Your task to perform on an android device: Go to eBay Image 0: 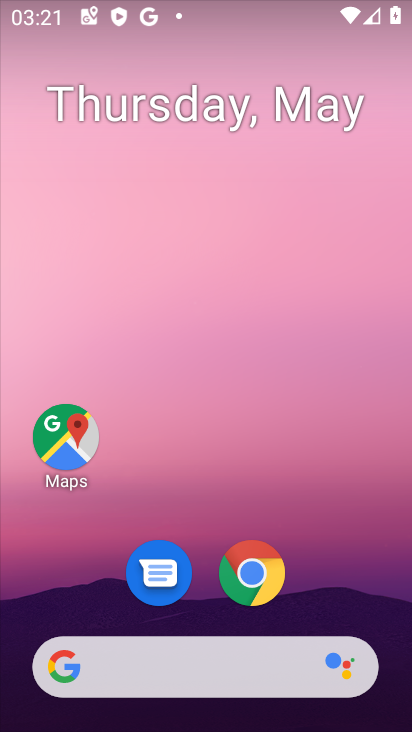
Step 0: click (253, 570)
Your task to perform on an android device: Go to eBay Image 1: 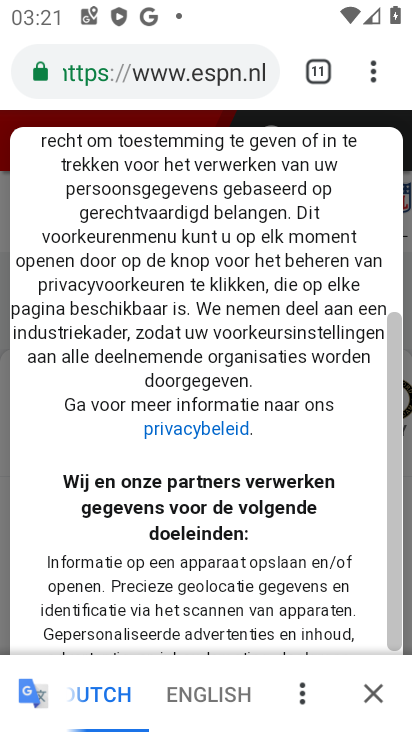
Step 1: click (301, 64)
Your task to perform on an android device: Go to eBay Image 2: 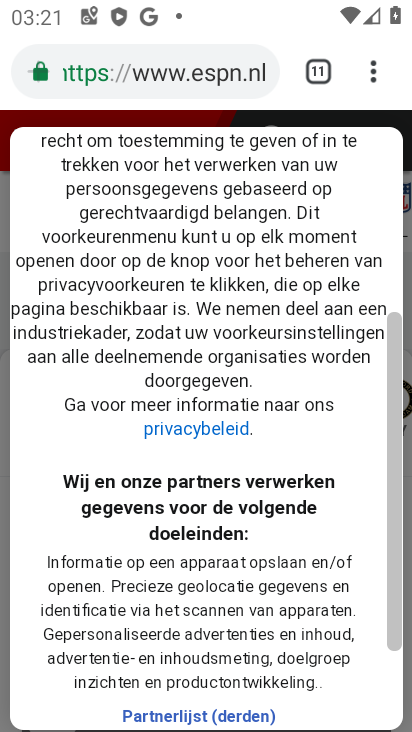
Step 2: click (323, 74)
Your task to perform on an android device: Go to eBay Image 3: 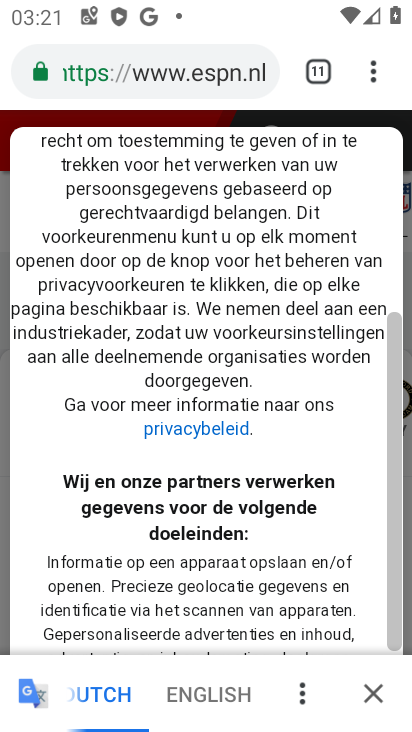
Step 3: click (317, 68)
Your task to perform on an android device: Go to eBay Image 4: 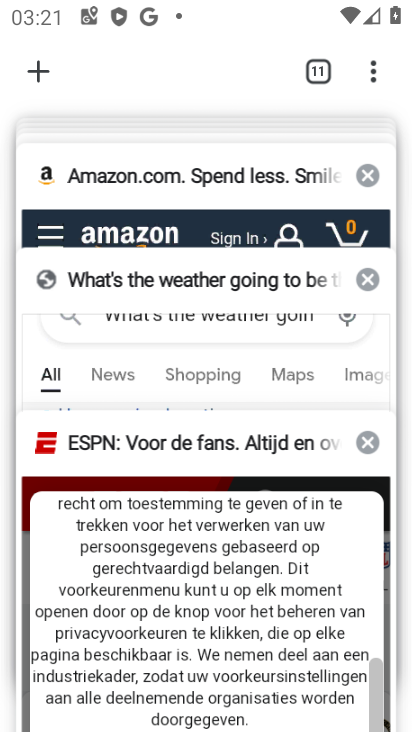
Step 4: drag from (206, 192) to (215, 556)
Your task to perform on an android device: Go to eBay Image 5: 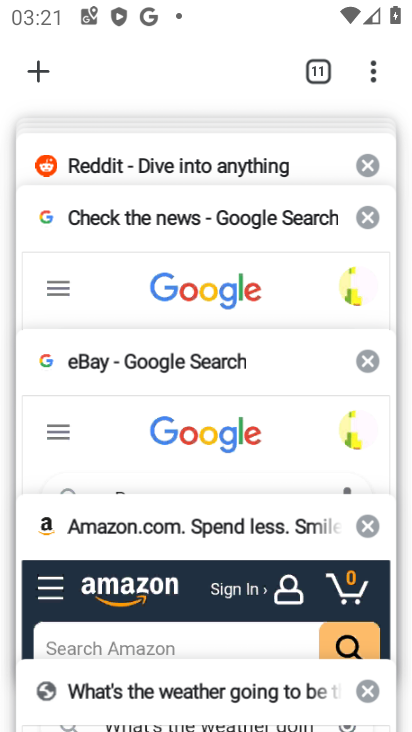
Step 5: click (178, 380)
Your task to perform on an android device: Go to eBay Image 6: 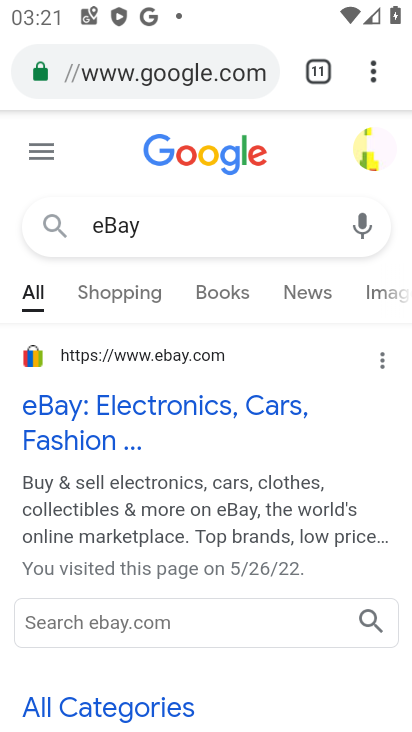
Step 6: task complete